Your task to perform on an android device: turn on javascript in the chrome app Image 0: 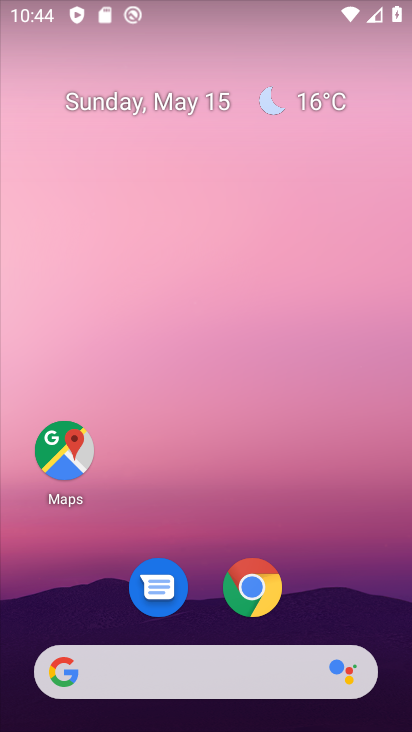
Step 0: drag from (333, 524) to (326, 83)
Your task to perform on an android device: turn on javascript in the chrome app Image 1: 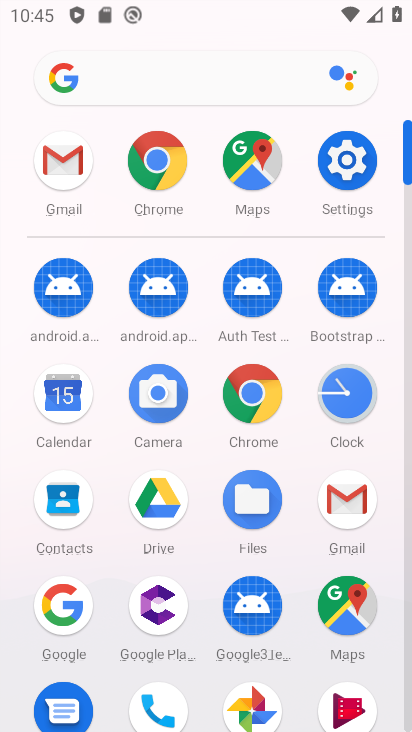
Step 1: click (246, 392)
Your task to perform on an android device: turn on javascript in the chrome app Image 2: 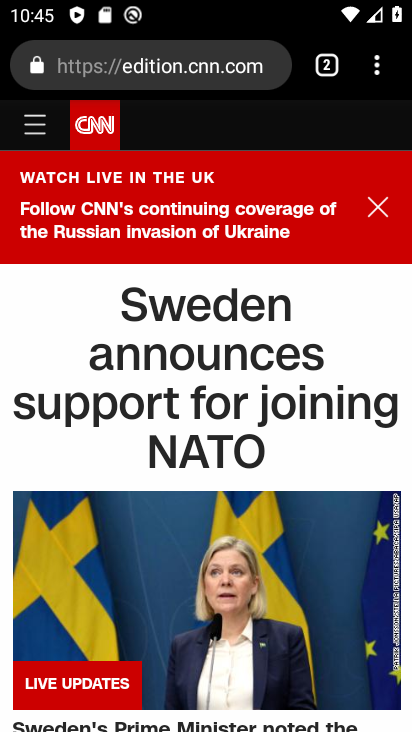
Step 2: drag from (376, 64) to (155, 631)
Your task to perform on an android device: turn on javascript in the chrome app Image 3: 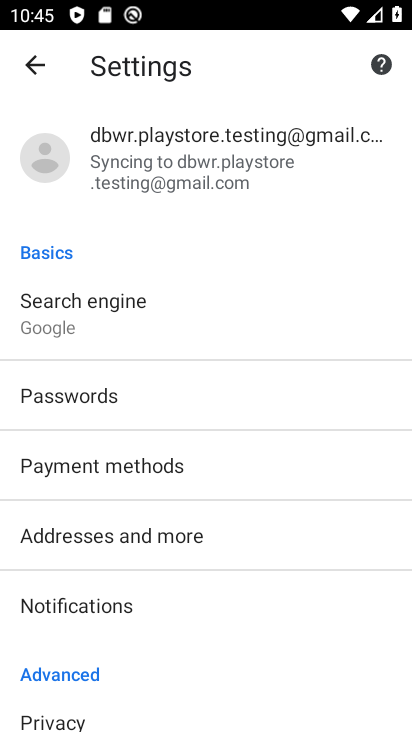
Step 3: drag from (266, 565) to (275, 192)
Your task to perform on an android device: turn on javascript in the chrome app Image 4: 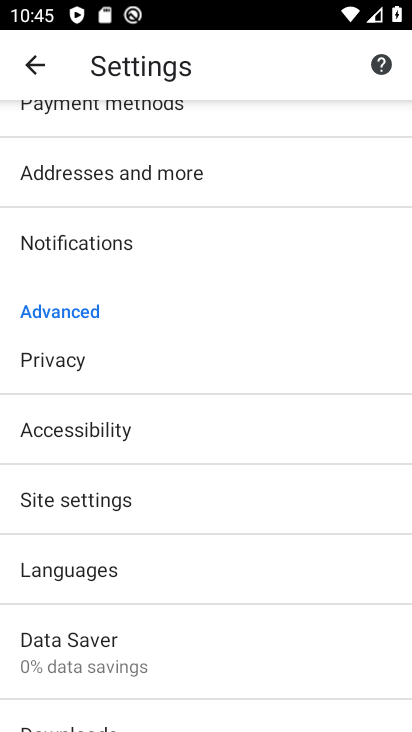
Step 4: click (122, 506)
Your task to perform on an android device: turn on javascript in the chrome app Image 5: 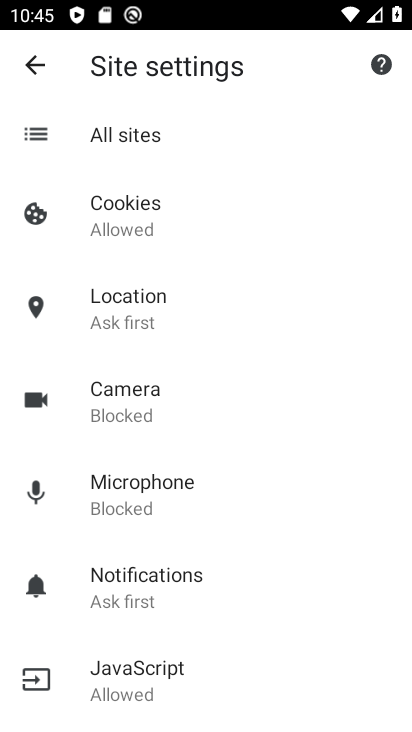
Step 5: click (175, 670)
Your task to perform on an android device: turn on javascript in the chrome app Image 6: 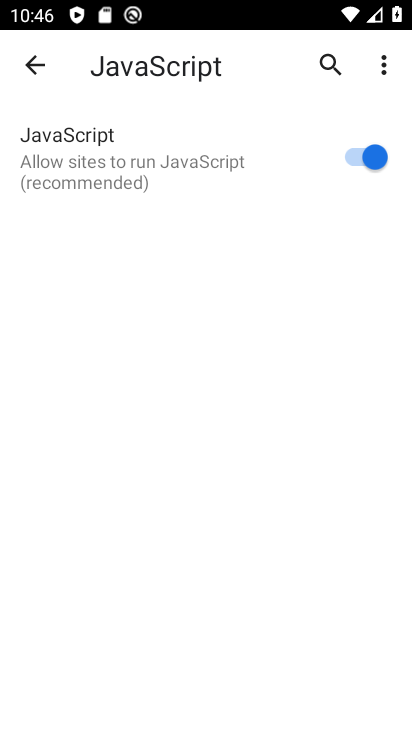
Step 6: task complete